Your task to perform on an android device: Open accessibility settings Image 0: 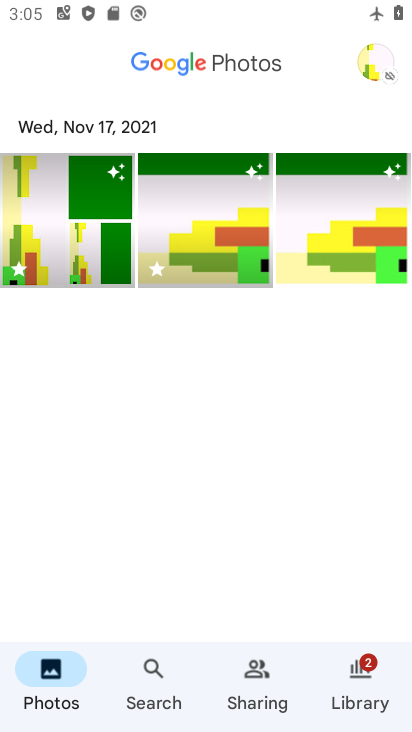
Step 0: press back button
Your task to perform on an android device: Open accessibility settings Image 1: 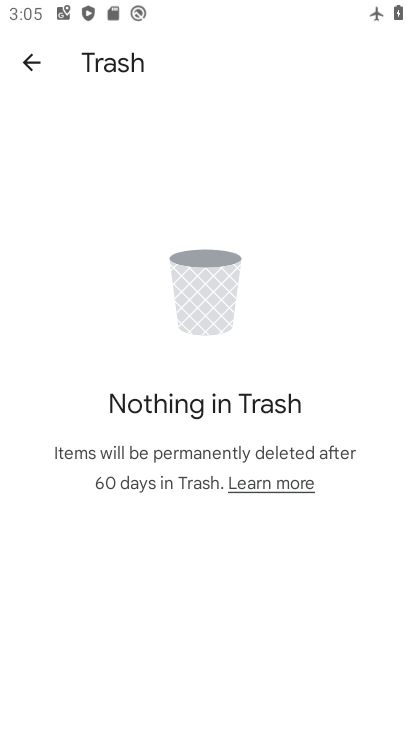
Step 1: press back button
Your task to perform on an android device: Open accessibility settings Image 2: 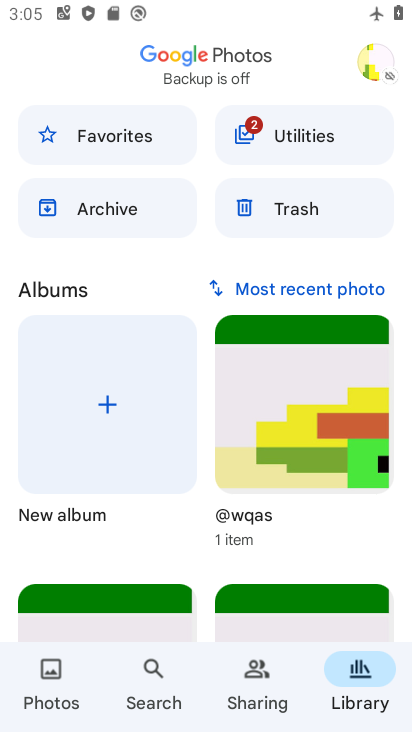
Step 2: press back button
Your task to perform on an android device: Open accessibility settings Image 3: 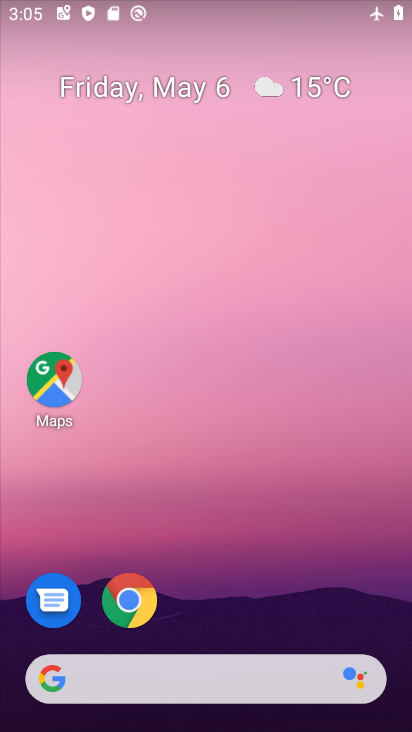
Step 3: drag from (202, 390) to (185, 18)
Your task to perform on an android device: Open accessibility settings Image 4: 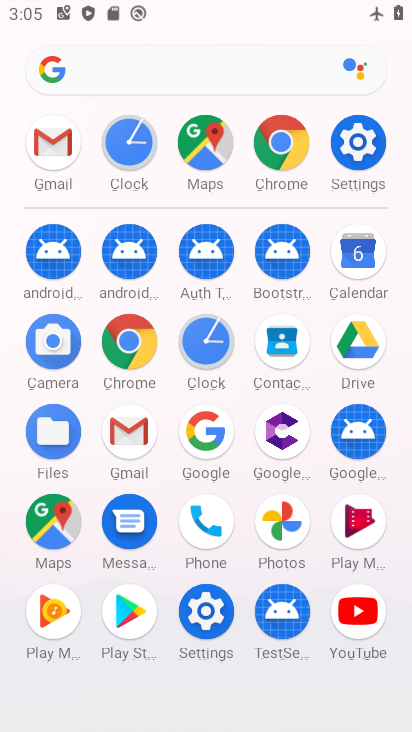
Step 4: drag from (6, 550) to (6, 218)
Your task to perform on an android device: Open accessibility settings Image 5: 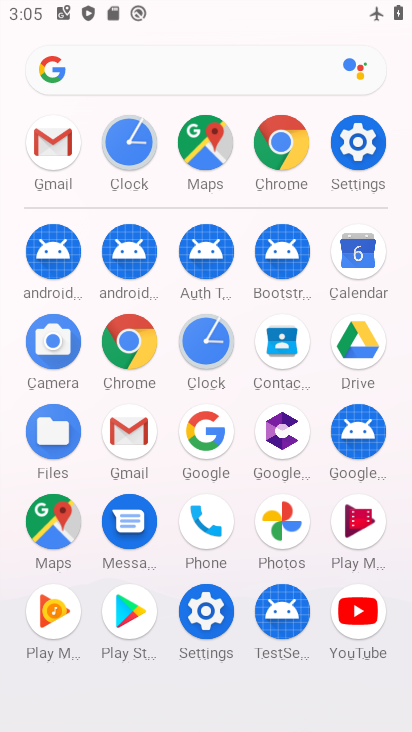
Step 5: click (202, 604)
Your task to perform on an android device: Open accessibility settings Image 6: 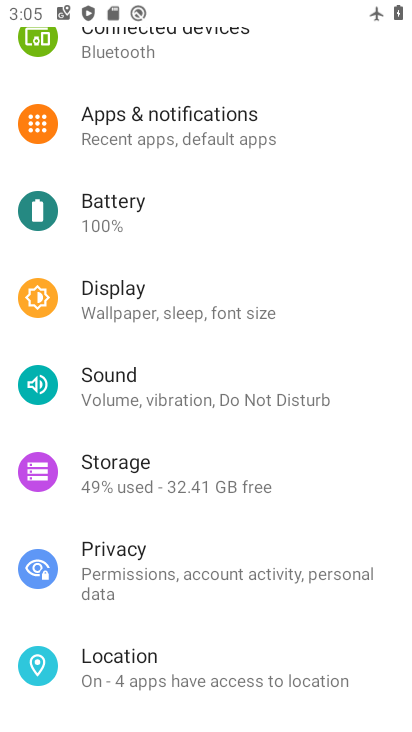
Step 6: drag from (245, 558) to (240, 75)
Your task to perform on an android device: Open accessibility settings Image 7: 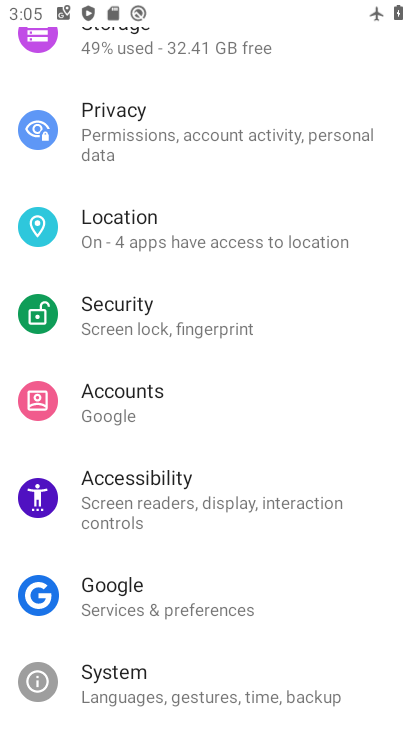
Step 7: drag from (279, 576) to (277, 149)
Your task to perform on an android device: Open accessibility settings Image 8: 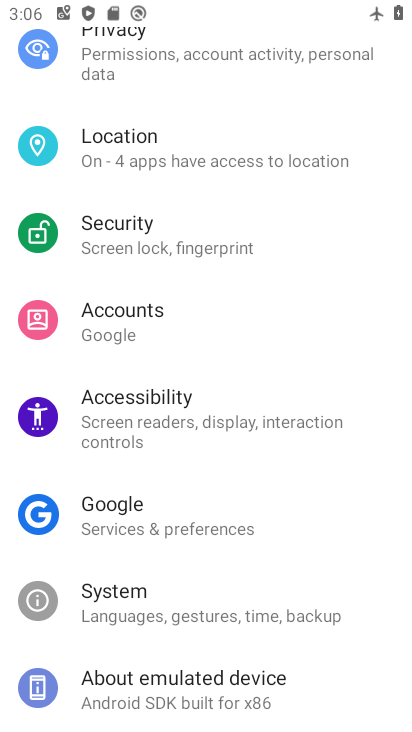
Step 8: drag from (256, 632) to (274, 166)
Your task to perform on an android device: Open accessibility settings Image 9: 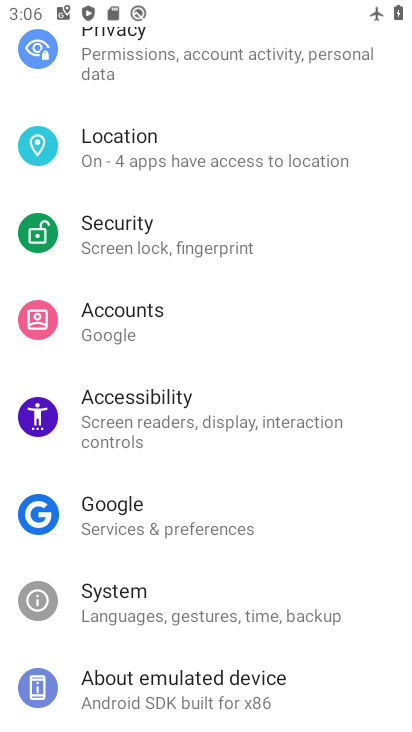
Step 9: click (192, 409)
Your task to perform on an android device: Open accessibility settings Image 10: 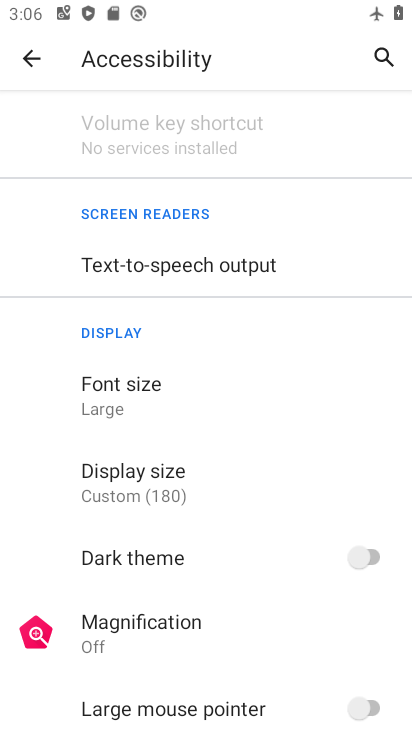
Step 10: task complete